Your task to perform on an android device: turn on the 12-hour format for clock Image 0: 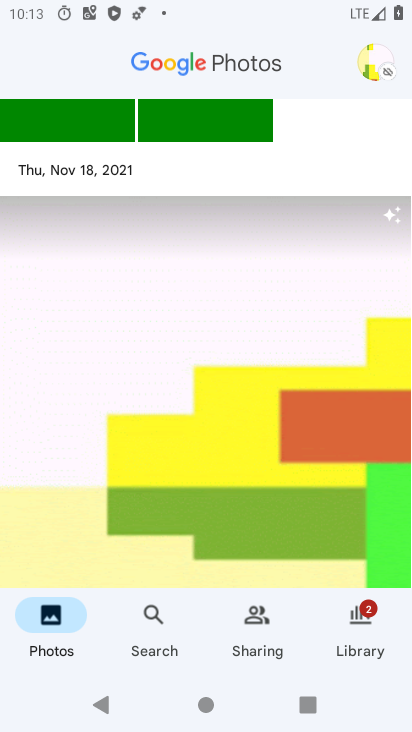
Step 0: press home button
Your task to perform on an android device: turn on the 12-hour format for clock Image 1: 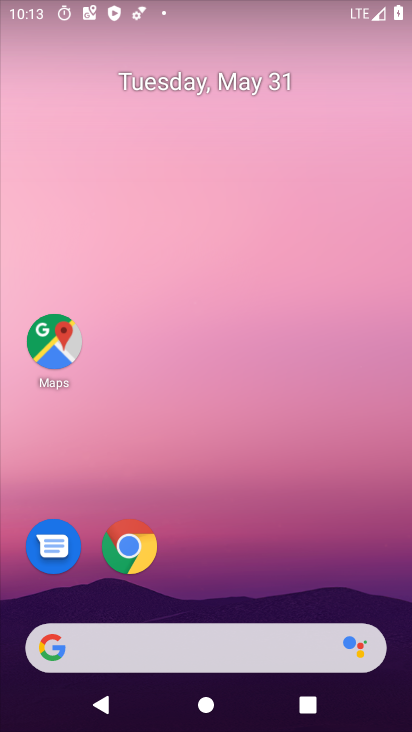
Step 1: drag from (213, 524) to (219, 109)
Your task to perform on an android device: turn on the 12-hour format for clock Image 2: 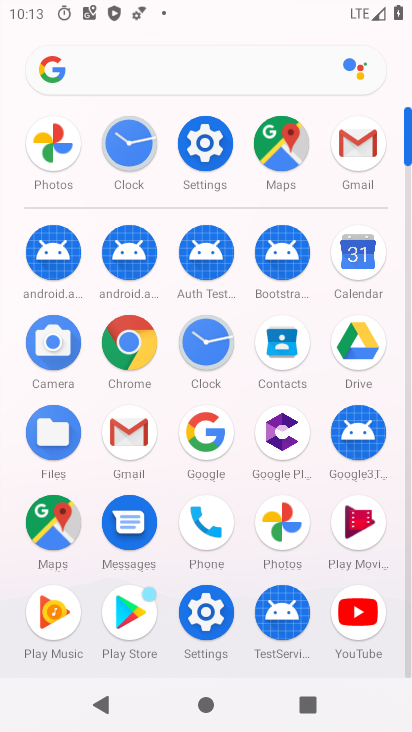
Step 2: click (217, 139)
Your task to perform on an android device: turn on the 12-hour format for clock Image 3: 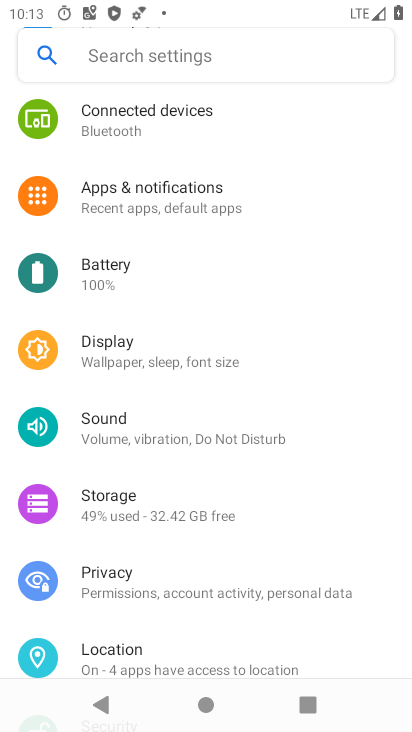
Step 3: press home button
Your task to perform on an android device: turn on the 12-hour format for clock Image 4: 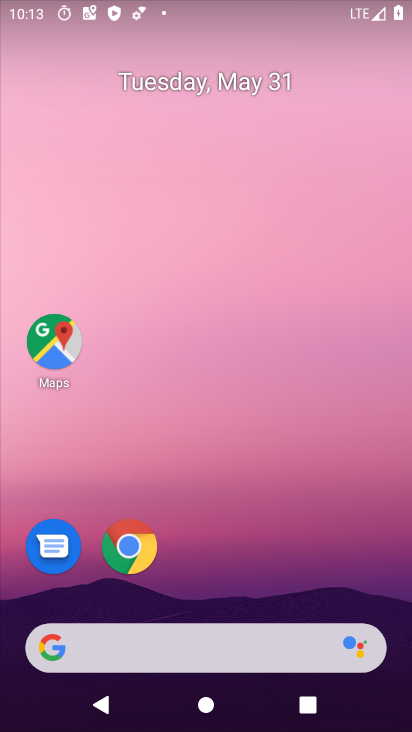
Step 4: drag from (228, 571) to (262, 73)
Your task to perform on an android device: turn on the 12-hour format for clock Image 5: 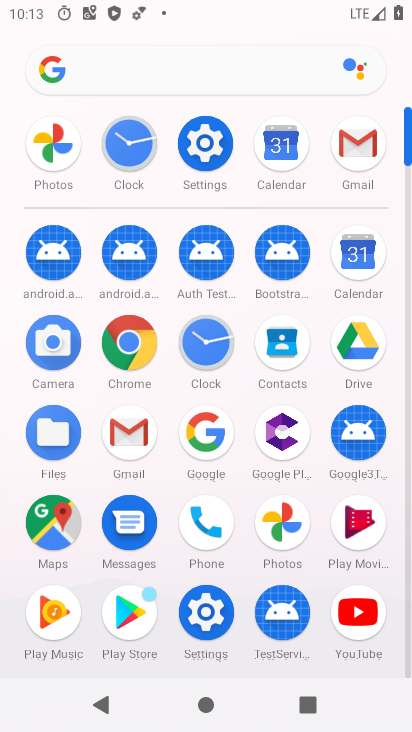
Step 5: click (135, 151)
Your task to perform on an android device: turn on the 12-hour format for clock Image 6: 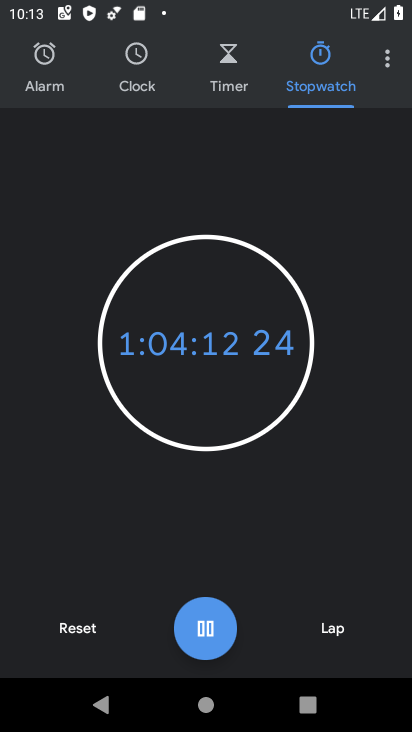
Step 6: click (384, 52)
Your task to perform on an android device: turn on the 12-hour format for clock Image 7: 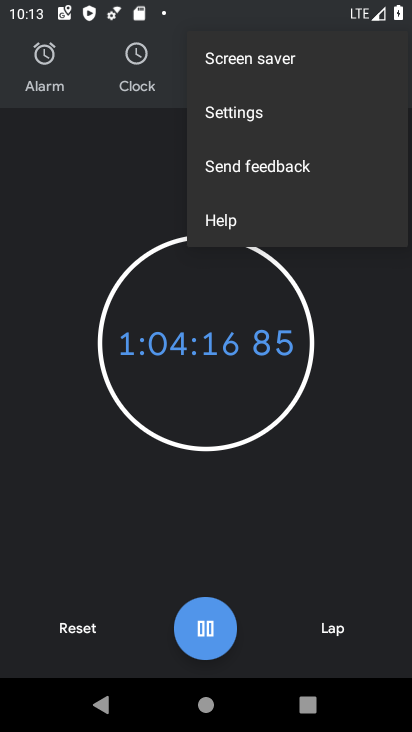
Step 7: click (295, 98)
Your task to perform on an android device: turn on the 12-hour format for clock Image 8: 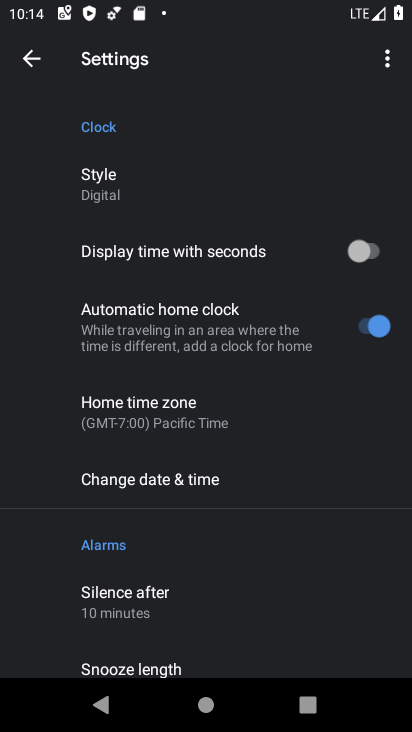
Step 8: drag from (201, 554) to (281, 112)
Your task to perform on an android device: turn on the 12-hour format for clock Image 9: 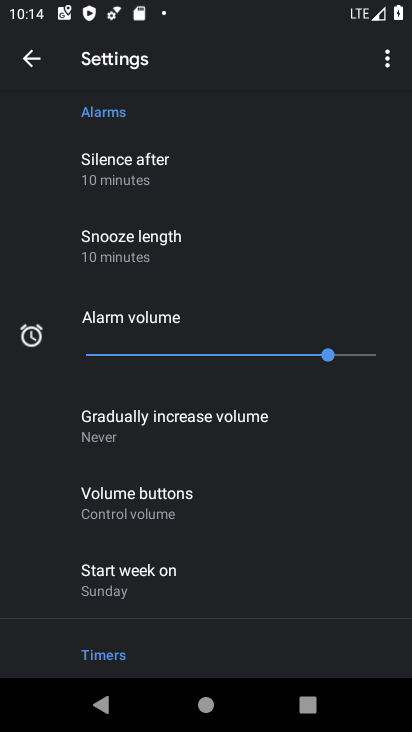
Step 9: drag from (232, 507) to (292, 257)
Your task to perform on an android device: turn on the 12-hour format for clock Image 10: 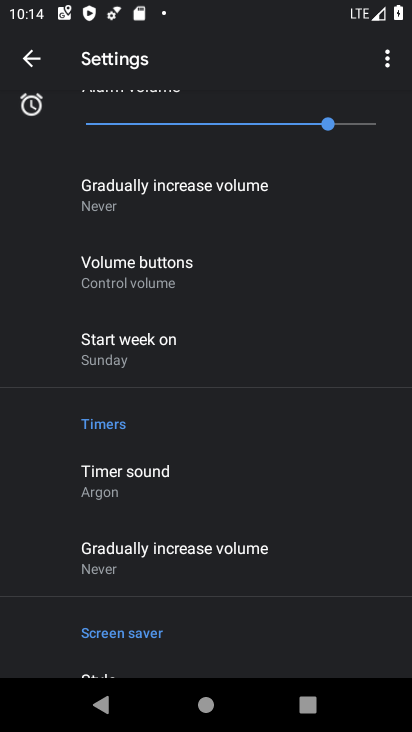
Step 10: drag from (306, 205) to (308, 536)
Your task to perform on an android device: turn on the 12-hour format for clock Image 11: 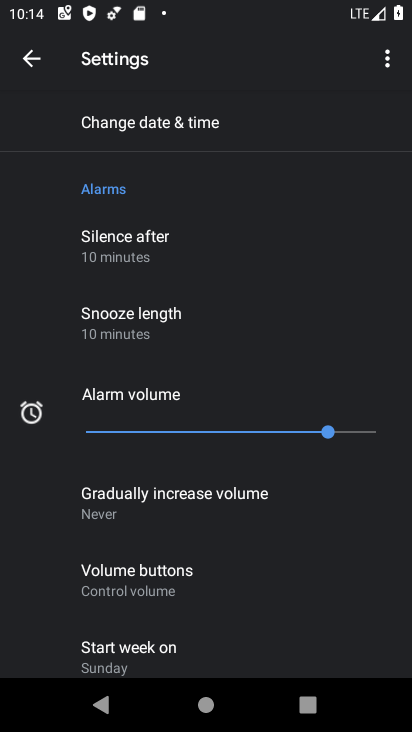
Step 11: drag from (207, 195) to (162, 471)
Your task to perform on an android device: turn on the 12-hour format for clock Image 12: 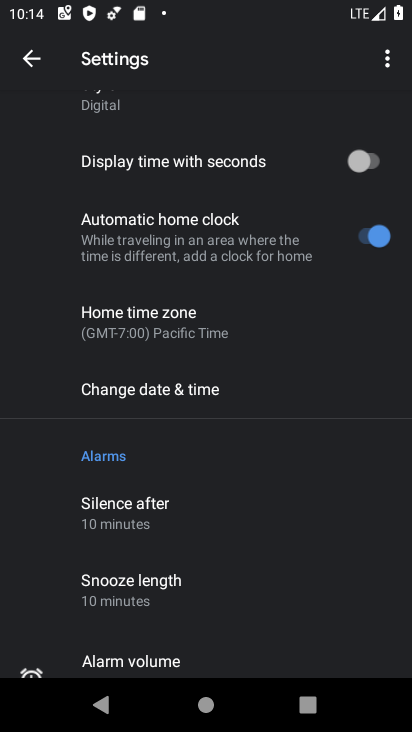
Step 12: click (210, 362)
Your task to perform on an android device: turn on the 12-hour format for clock Image 13: 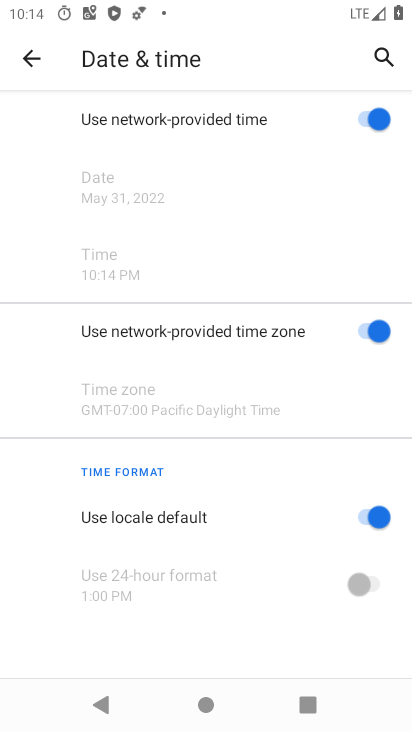
Step 13: task complete